Your task to perform on an android device: Open sound settings Image 0: 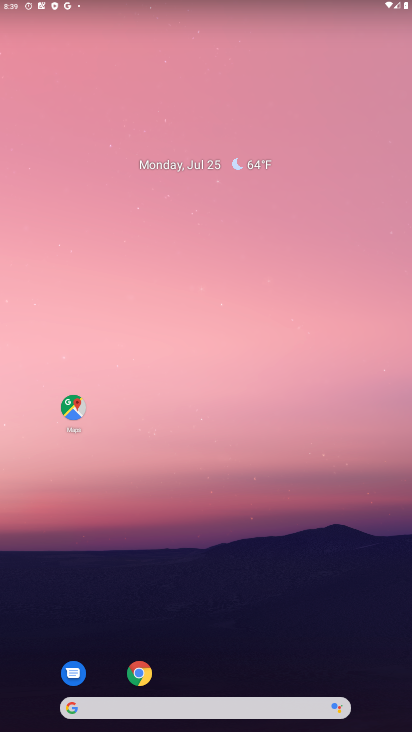
Step 0: drag from (190, 679) to (233, 175)
Your task to perform on an android device: Open sound settings Image 1: 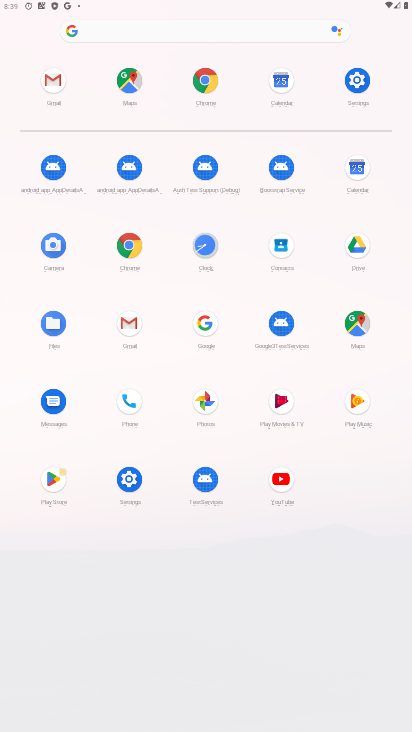
Step 1: click (123, 485)
Your task to perform on an android device: Open sound settings Image 2: 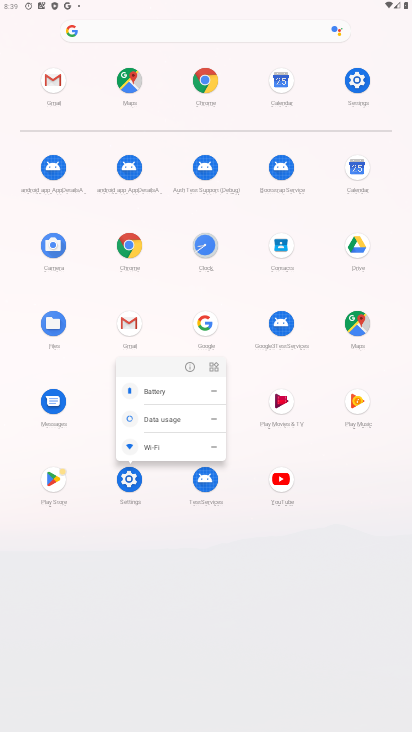
Step 2: click (187, 369)
Your task to perform on an android device: Open sound settings Image 3: 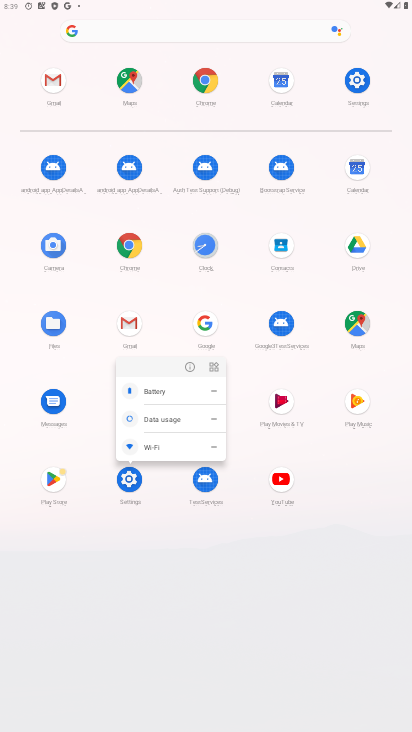
Step 3: click (189, 364)
Your task to perform on an android device: Open sound settings Image 4: 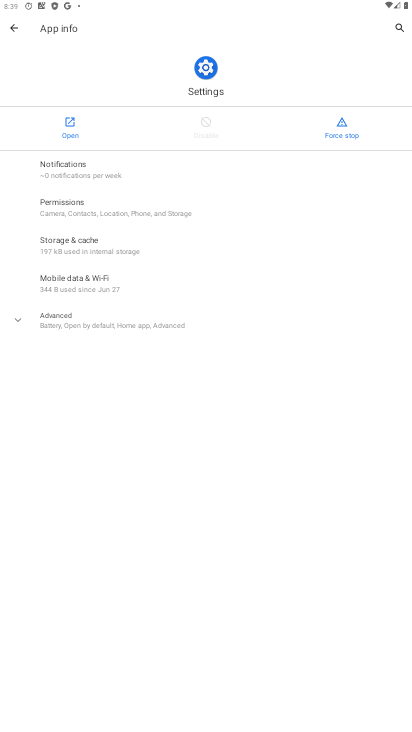
Step 4: click (66, 128)
Your task to perform on an android device: Open sound settings Image 5: 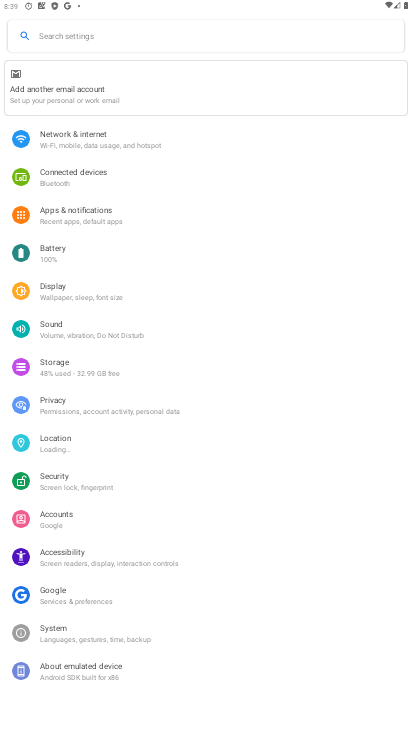
Step 5: click (76, 333)
Your task to perform on an android device: Open sound settings Image 6: 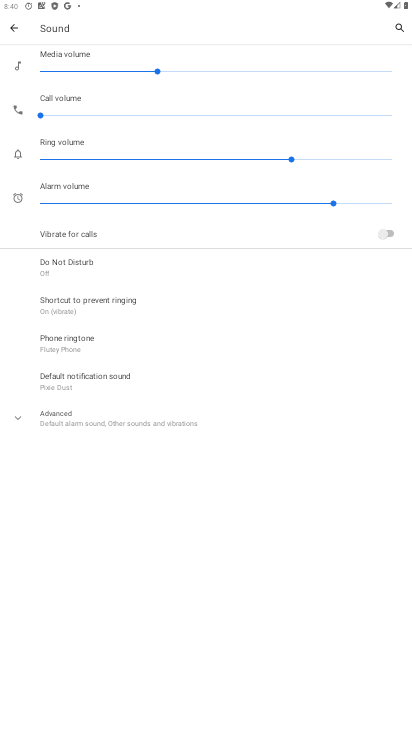
Step 6: task complete